Your task to perform on an android device: Open Google Chrome and open the bookmarks view Image 0: 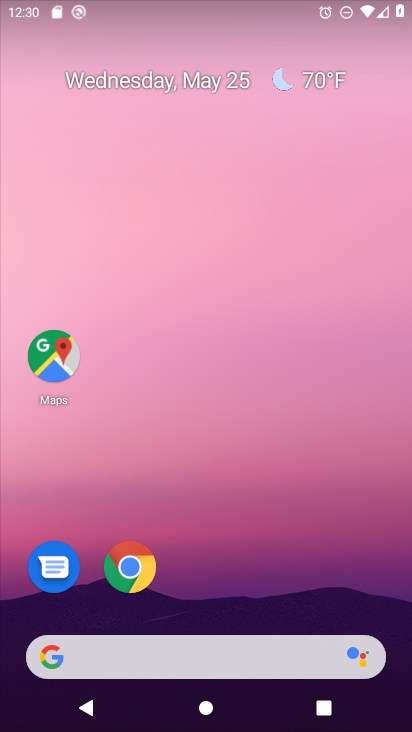
Step 0: click (131, 568)
Your task to perform on an android device: Open Google Chrome and open the bookmarks view Image 1: 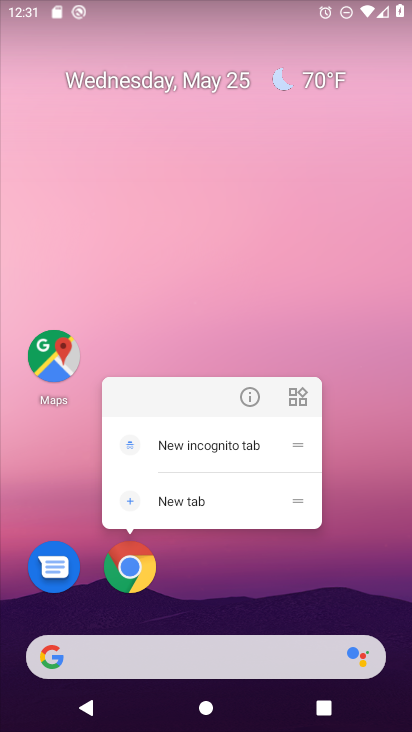
Step 1: click (131, 569)
Your task to perform on an android device: Open Google Chrome and open the bookmarks view Image 2: 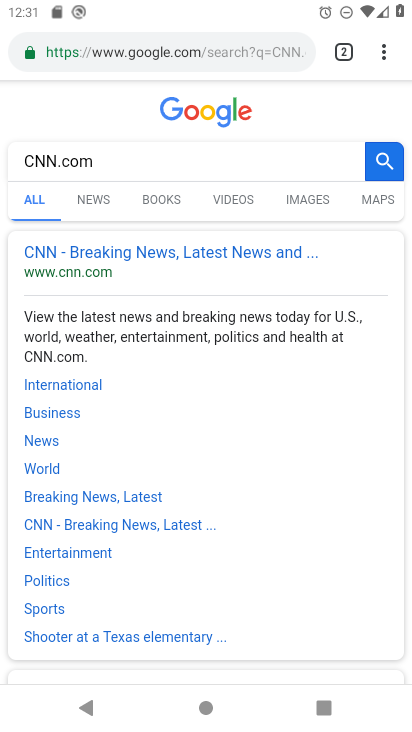
Step 2: click (379, 50)
Your task to perform on an android device: Open Google Chrome and open the bookmarks view Image 3: 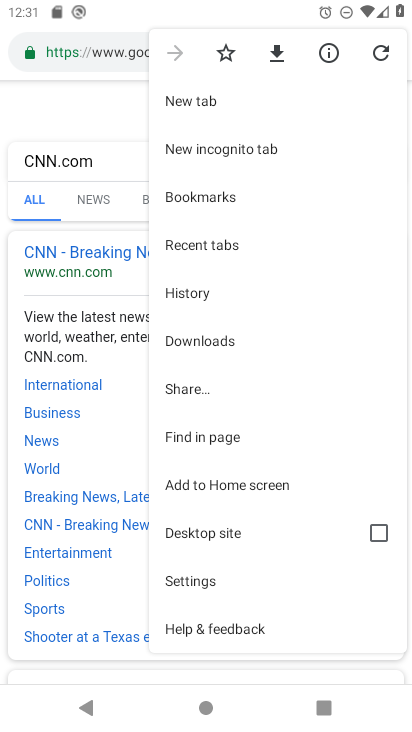
Step 3: click (196, 578)
Your task to perform on an android device: Open Google Chrome and open the bookmarks view Image 4: 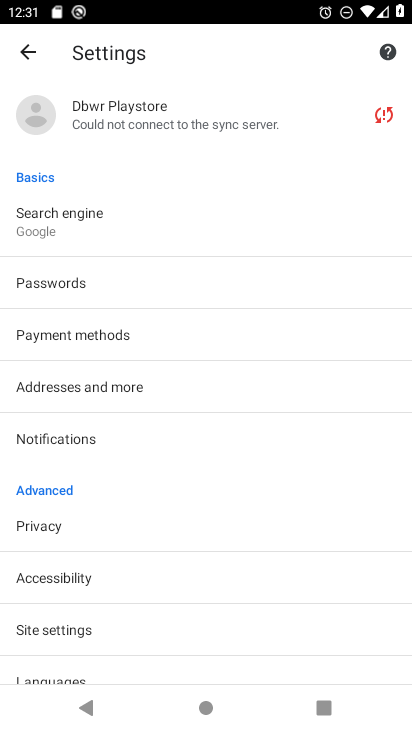
Step 4: click (23, 50)
Your task to perform on an android device: Open Google Chrome and open the bookmarks view Image 5: 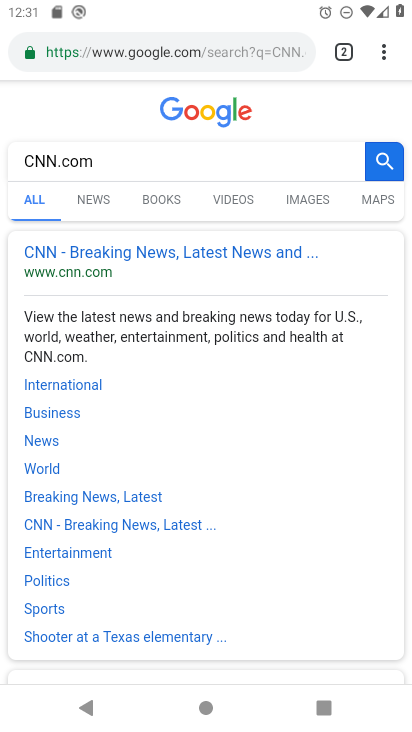
Step 5: click (384, 50)
Your task to perform on an android device: Open Google Chrome and open the bookmarks view Image 6: 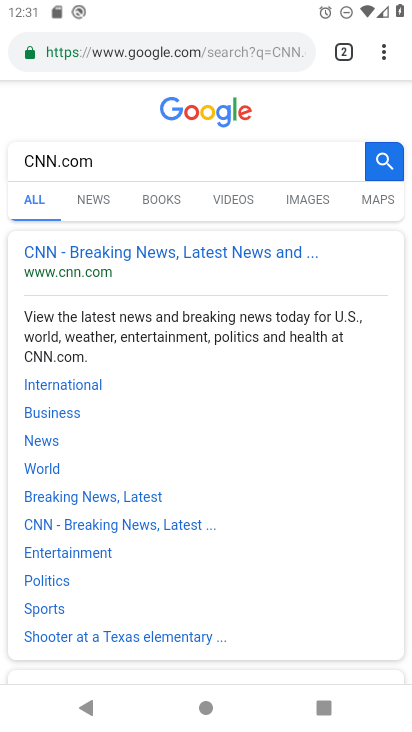
Step 6: click (384, 50)
Your task to perform on an android device: Open Google Chrome and open the bookmarks view Image 7: 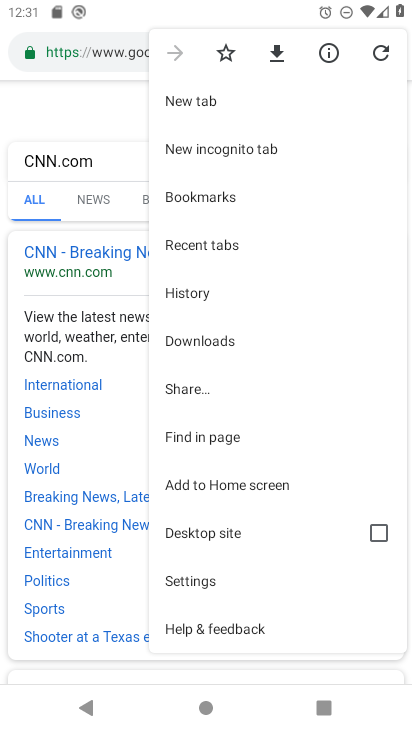
Step 7: click (197, 196)
Your task to perform on an android device: Open Google Chrome and open the bookmarks view Image 8: 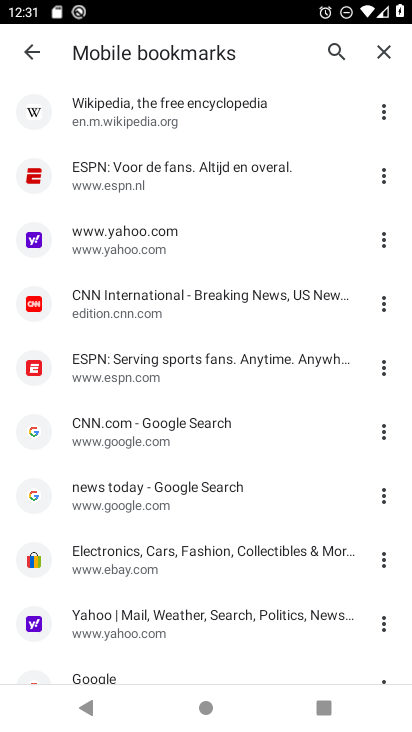
Step 8: task complete